Your task to perform on an android device: toggle show notifications on the lock screen Image 0: 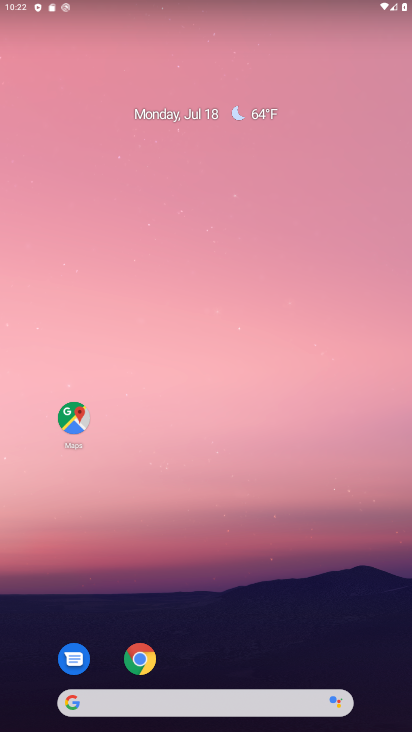
Step 0: drag from (206, 662) to (248, 171)
Your task to perform on an android device: toggle show notifications on the lock screen Image 1: 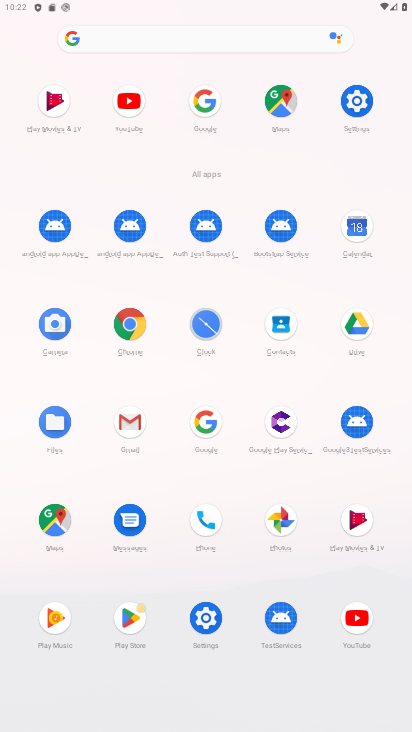
Step 1: click (360, 105)
Your task to perform on an android device: toggle show notifications on the lock screen Image 2: 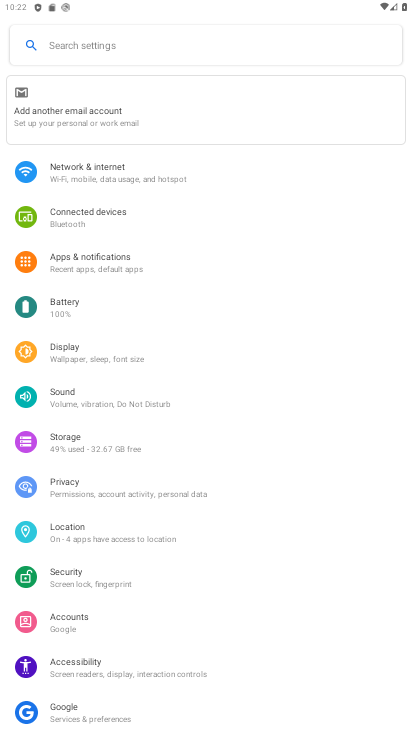
Step 2: click (132, 259)
Your task to perform on an android device: toggle show notifications on the lock screen Image 3: 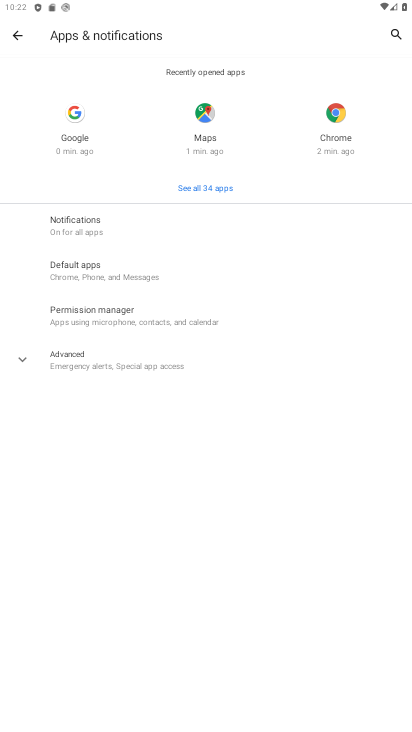
Step 3: click (100, 222)
Your task to perform on an android device: toggle show notifications on the lock screen Image 4: 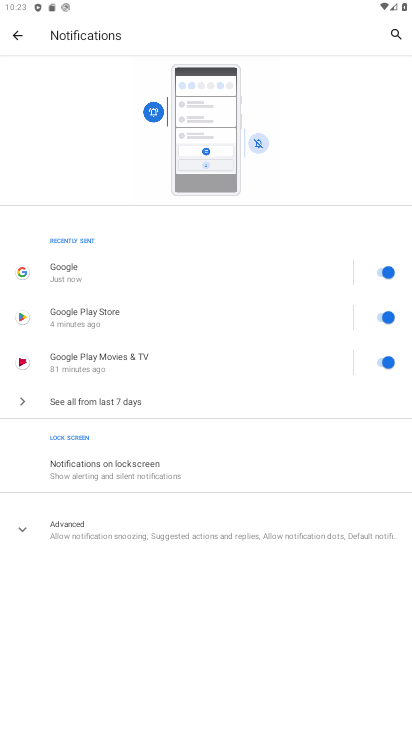
Step 4: click (97, 473)
Your task to perform on an android device: toggle show notifications on the lock screen Image 5: 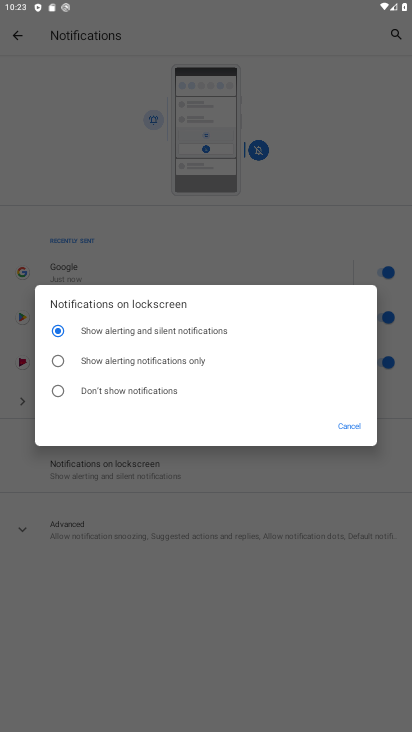
Step 5: click (58, 393)
Your task to perform on an android device: toggle show notifications on the lock screen Image 6: 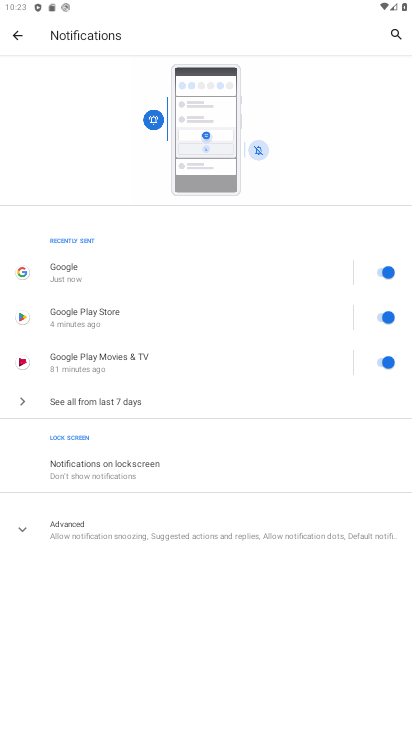
Step 6: task complete